Your task to perform on an android device: change notification settings in the gmail app Image 0: 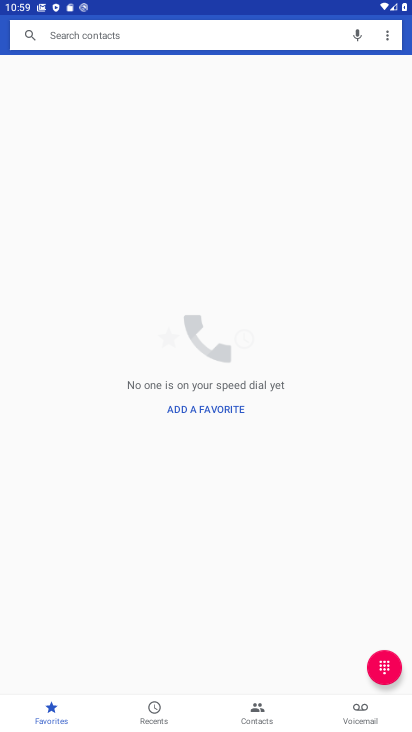
Step 0: press home button
Your task to perform on an android device: change notification settings in the gmail app Image 1: 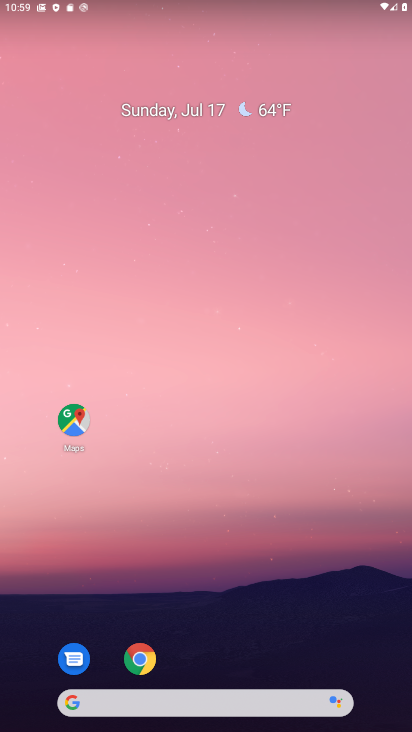
Step 1: drag from (227, 611) to (246, 213)
Your task to perform on an android device: change notification settings in the gmail app Image 2: 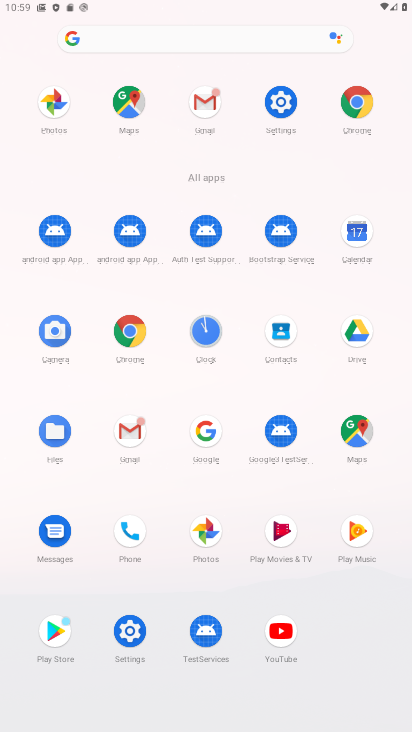
Step 2: click (124, 429)
Your task to perform on an android device: change notification settings in the gmail app Image 3: 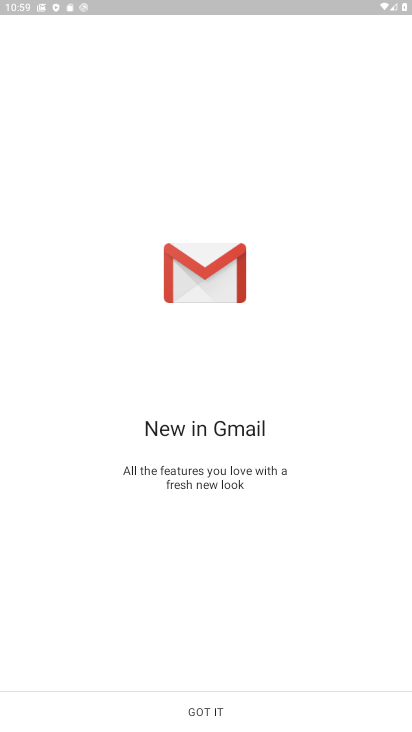
Step 3: click (207, 710)
Your task to perform on an android device: change notification settings in the gmail app Image 4: 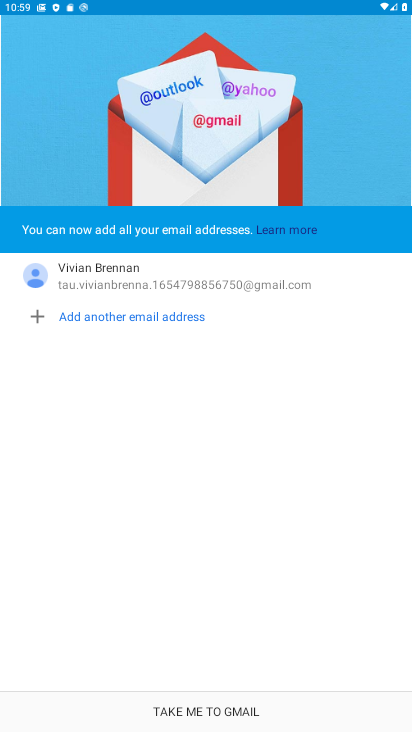
Step 4: click (200, 708)
Your task to perform on an android device: change notification settings in the gmail app Image 5: 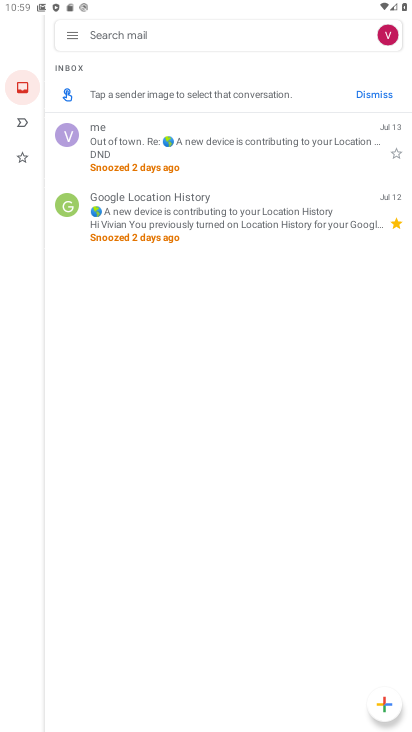
Step 5: click (70, 32)
Your task to perform on an android device: change notification settings in the gmail app Image 6: 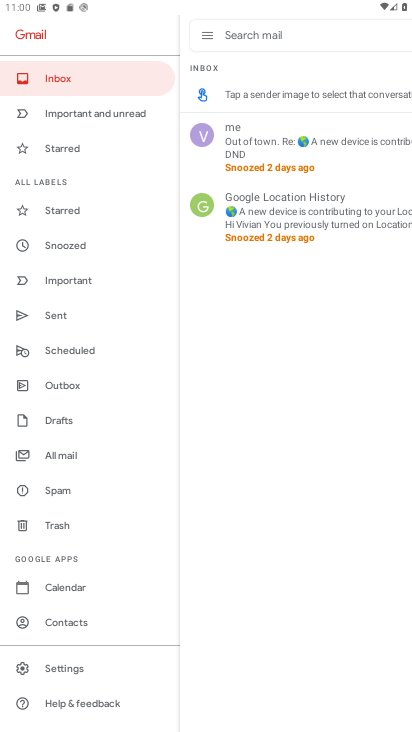
Step 6: click (69, 668)
Your task to perform on an android device: change notification settings in the gmail app Image 7: 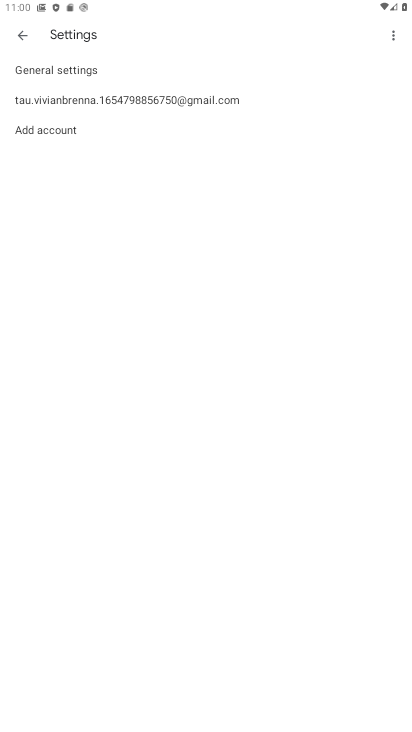
Step 7: click (87, 66)
Your task to perform on an android device: change notification settings in the gmail app Image 8: 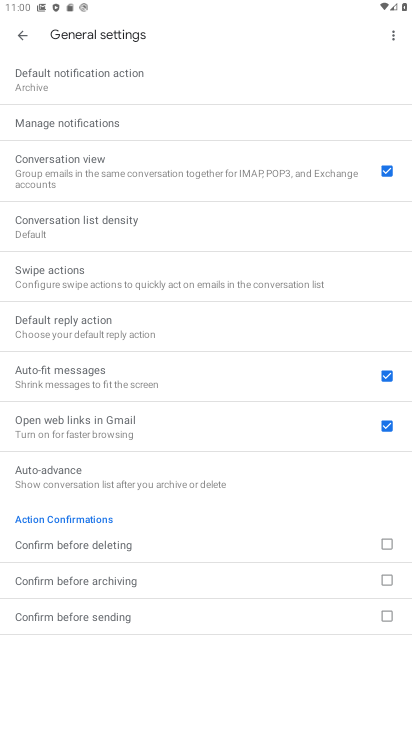
Step 8: click (111, 118)
Your task to perform on an android device: change notification settings in the gmail app Image 9: 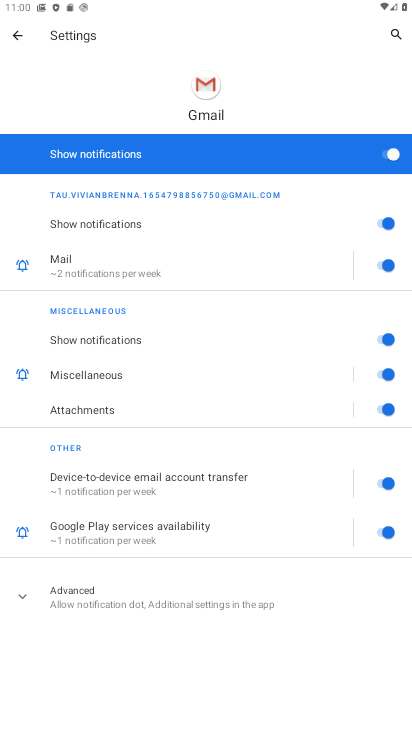
Step 9: click (390, 152)
Your task to perform on an android device: change notification settings in the gmail app Image 10: 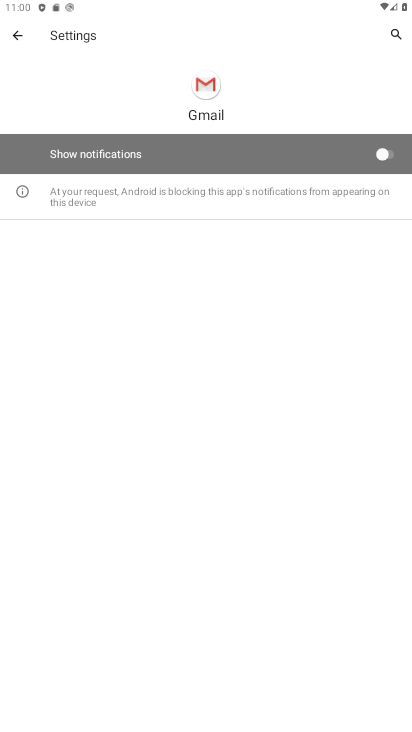
Step 10: task complete